Your task to perform on an android device: change text size in settings app Image 0: 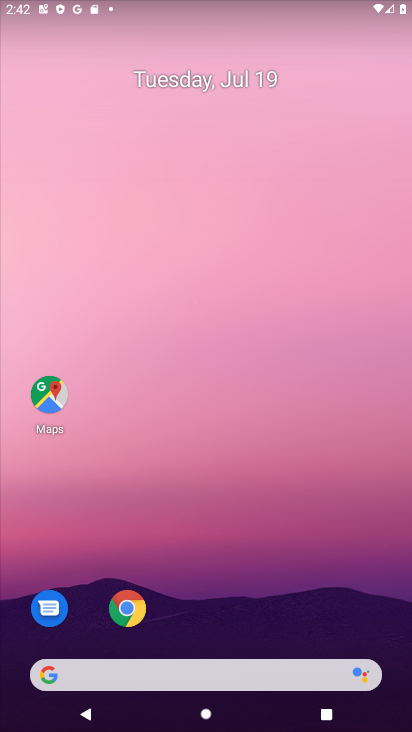
Step 0: drag from (231, 604) to (163, 87)
Your task to perform on an android device: change text size in settings app Image 1: 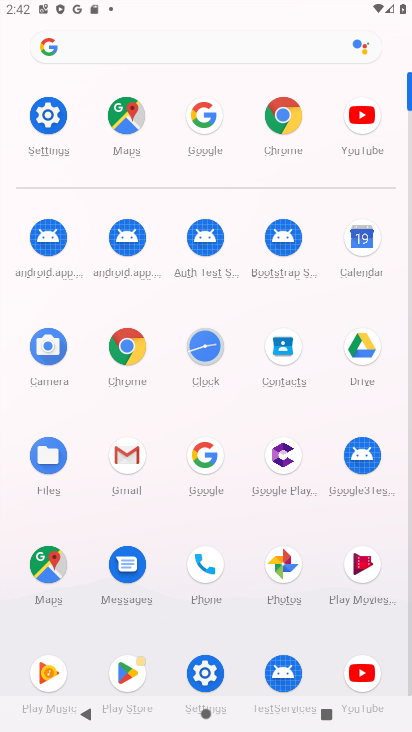
Step 1: click (40, 108)
Your task to perform on an android device: change text size in settings app Image 2: 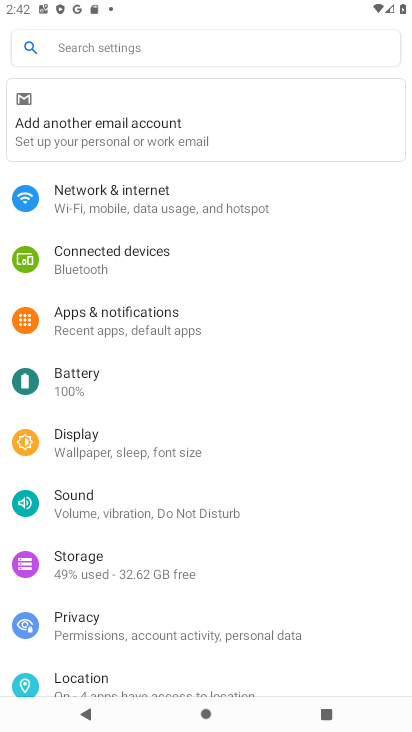
Step 2: click (121, 449)
Your task to perform on an android device: change text size in settings app Image 3: 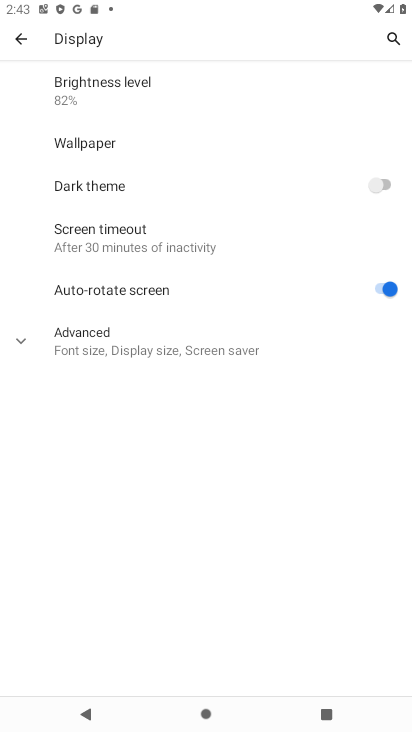
Step 3: click (54, 343)
Your task to perform on an android device: change text size in settings app Image 4: 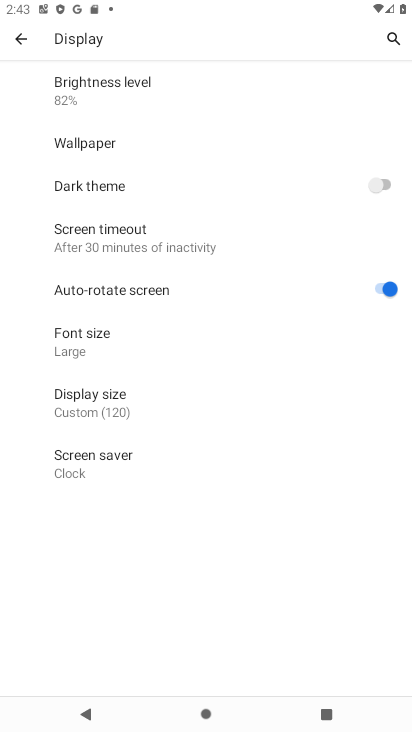
Step 4: click (72, 346)
Your task to perform on an android device: change text size in settings app Image 5: 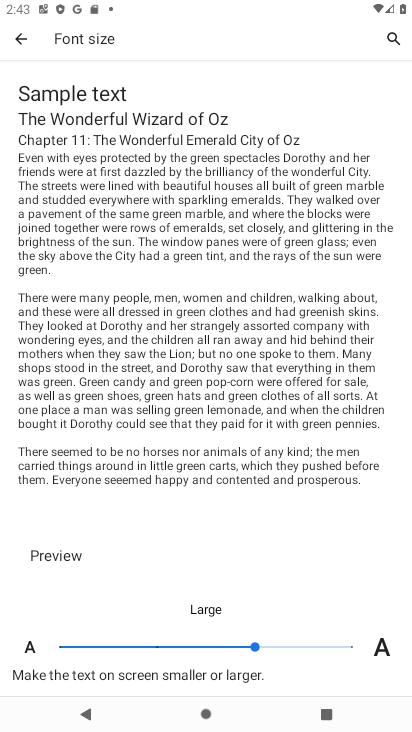
Step 5: click (108, 646)
Your task to perform on an android device: change text size in settings app Image 6: 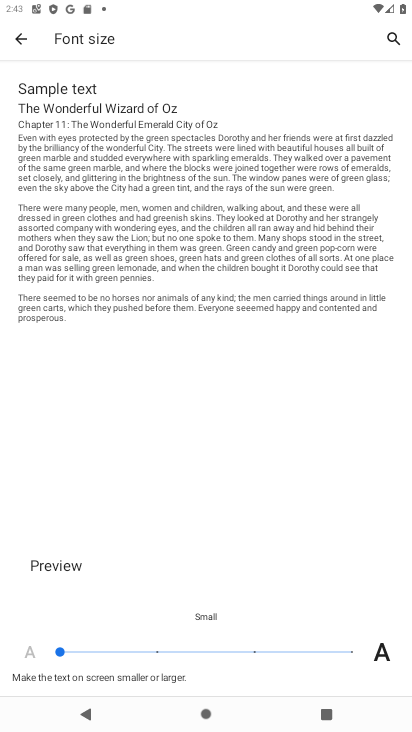
Step 6: task complete